Your task to perform on an android device: turn off location Image 0: 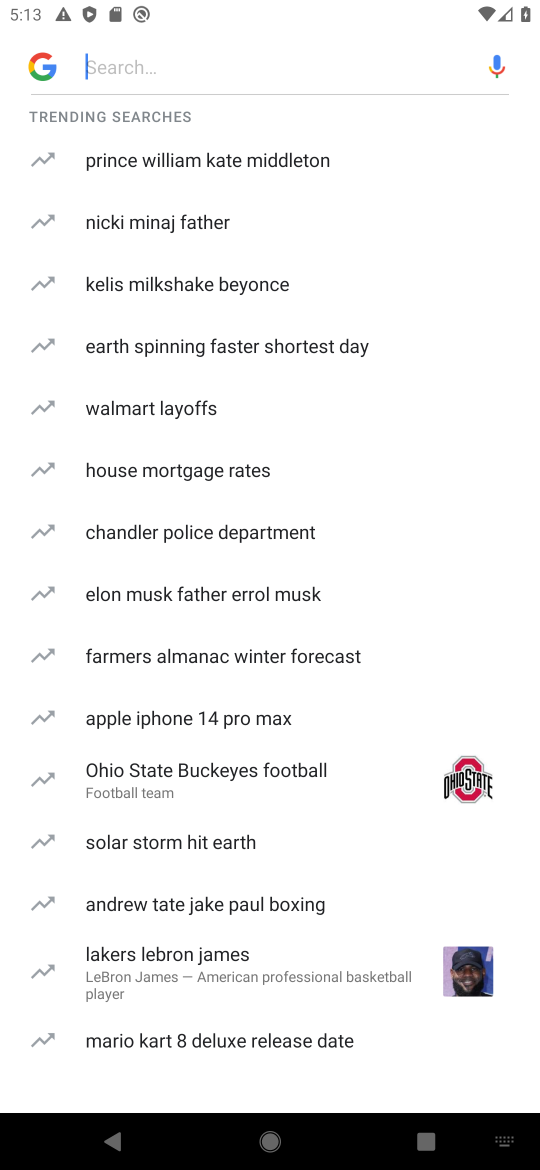
Step 0: press home button
Your task to perform on an android device: turn off location Image 1: 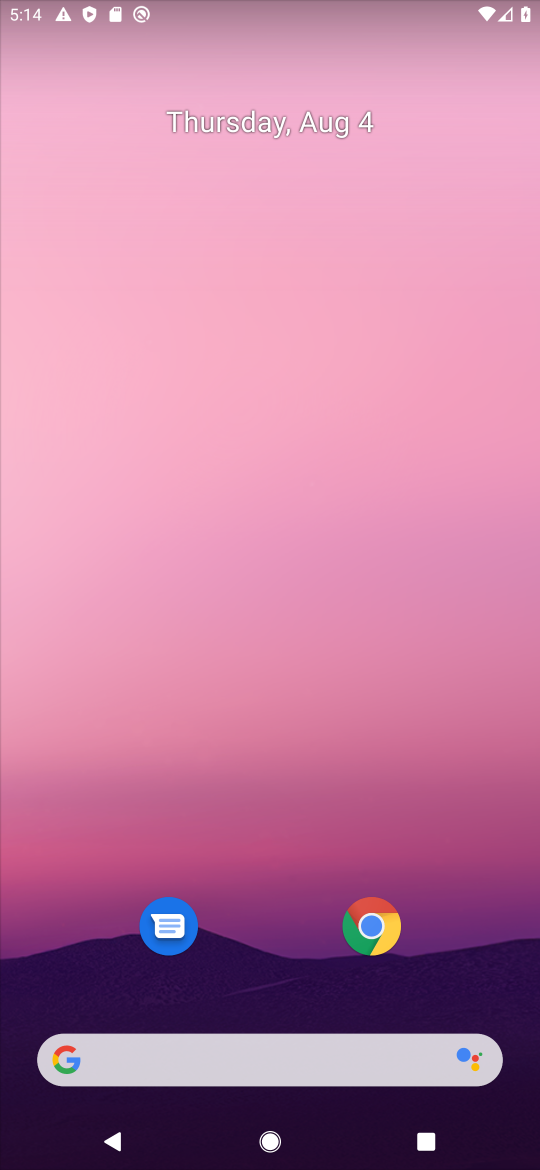
Step 1: drag from (495, 951) to (389, 119)
Your task to perform on an android device: turn off location Image 2: 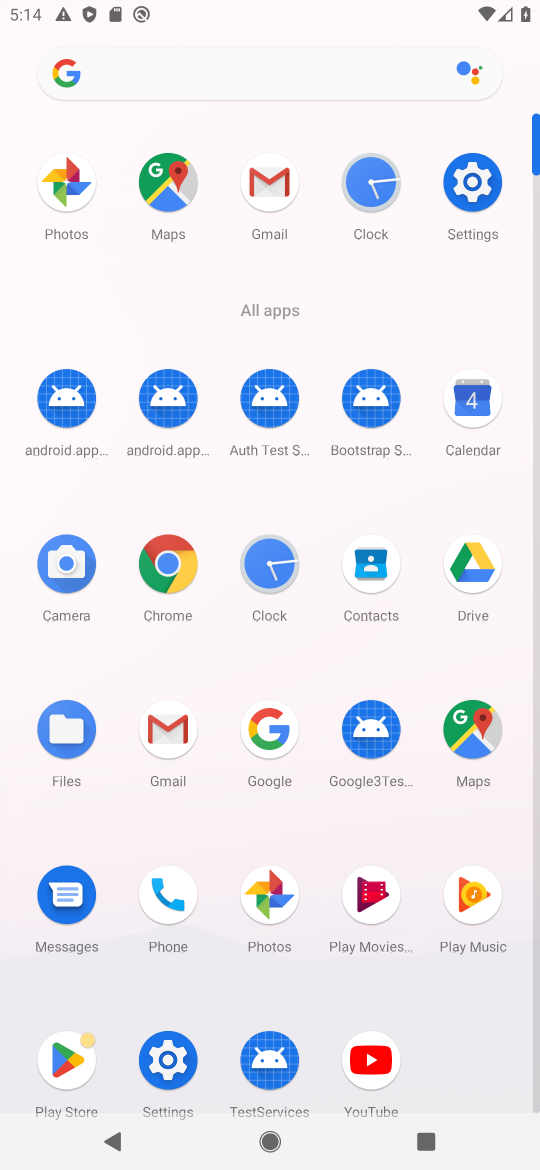
Step 2: click (182, 1061)
Your task to perform on an android device: turn off location Image 3: 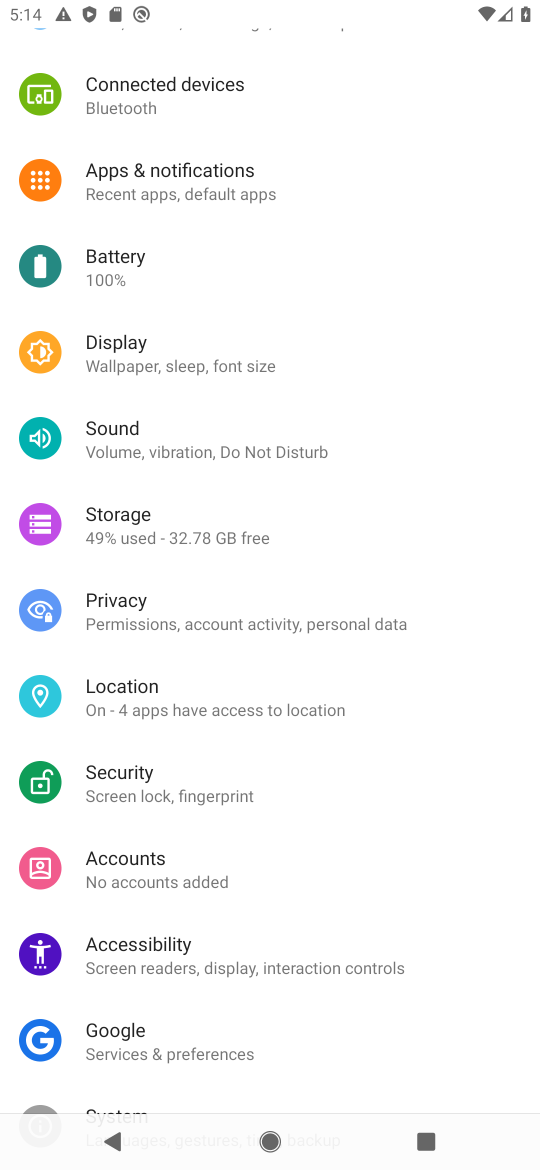
Step 3: click (90, 697)
Your task to perform on an android device: turn off location Image 4: 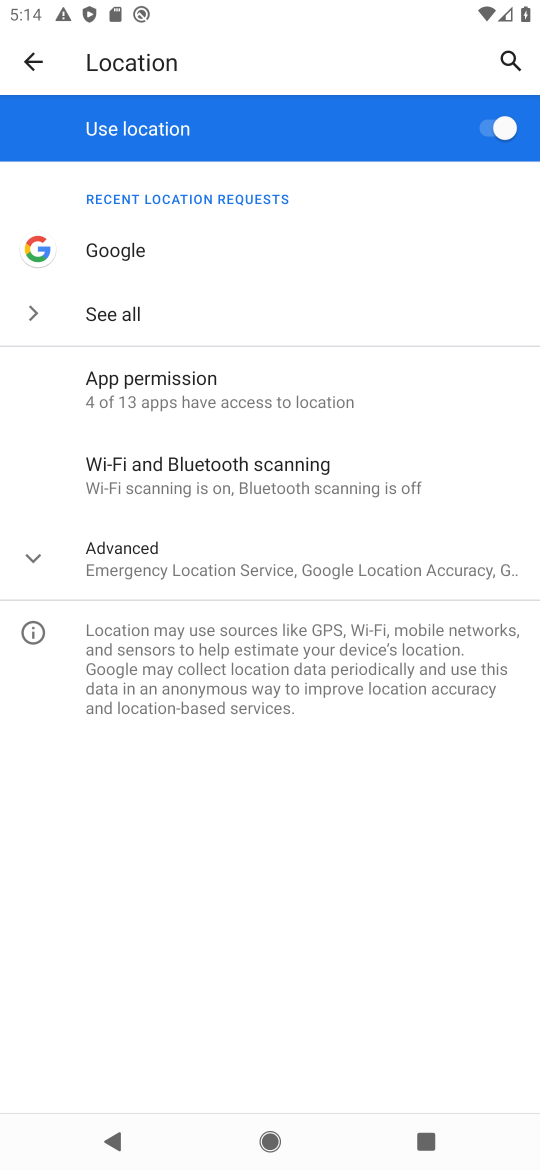
Step 4: click (499, 124)
Your task to perform on an android device: turn off location Image 5: 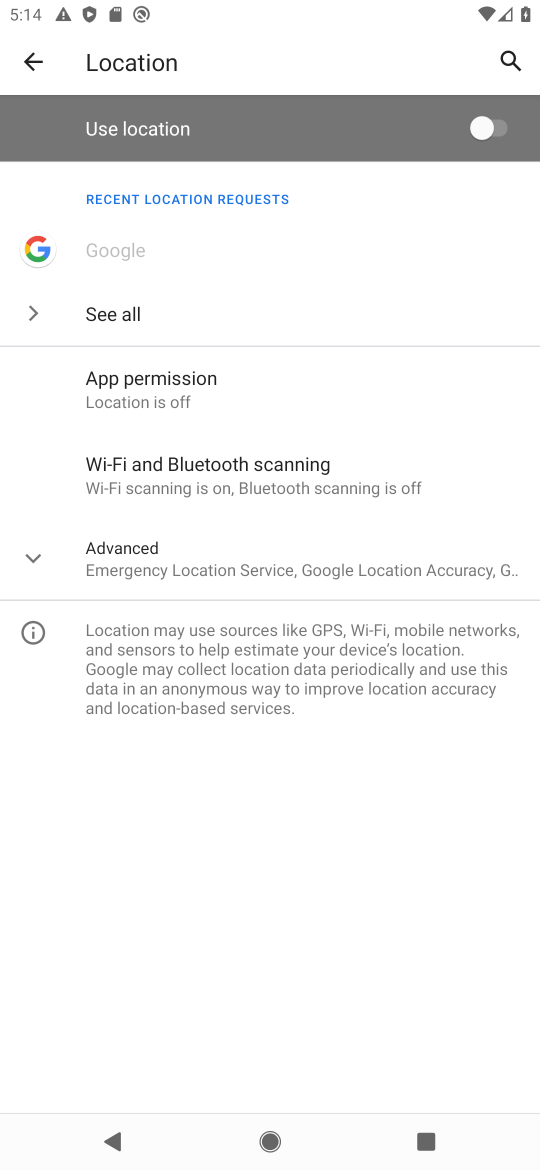
Step 5: task complete